Your task to perform on an android device: Go to Reddit.com Image 0: 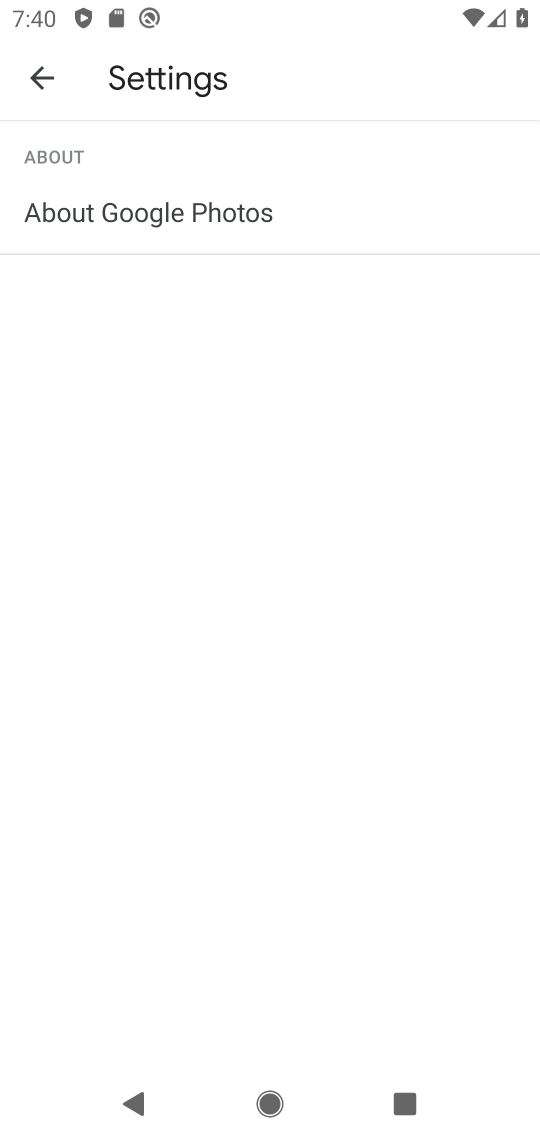
Step 0: press home button
Your task to perform on an android device: Go to Reddit.com Image 1: 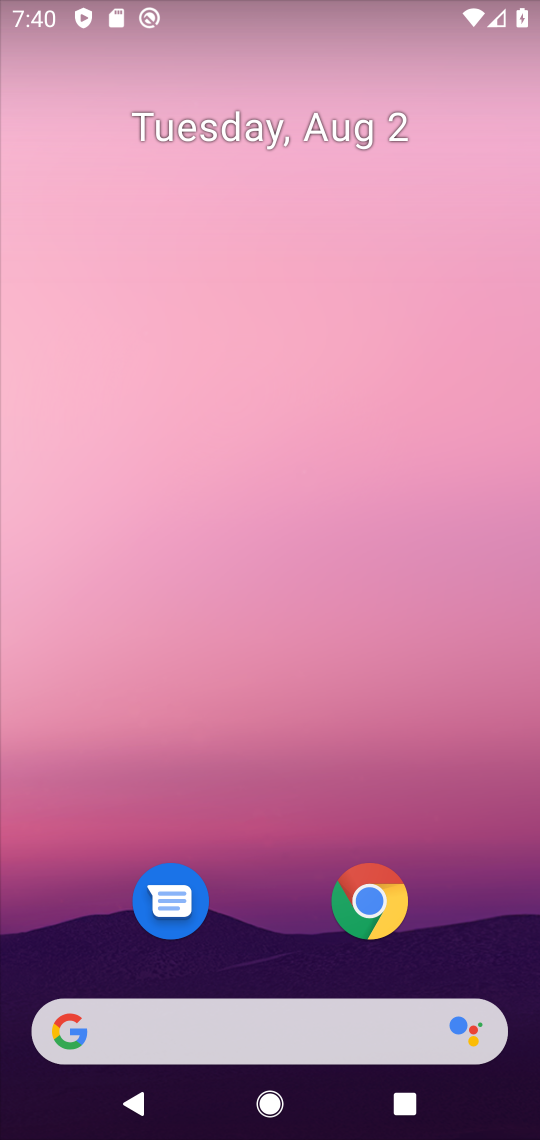
Step 1: click (366, 917)
Your task to perform on an android device: Go to Reddit.com Image 2: 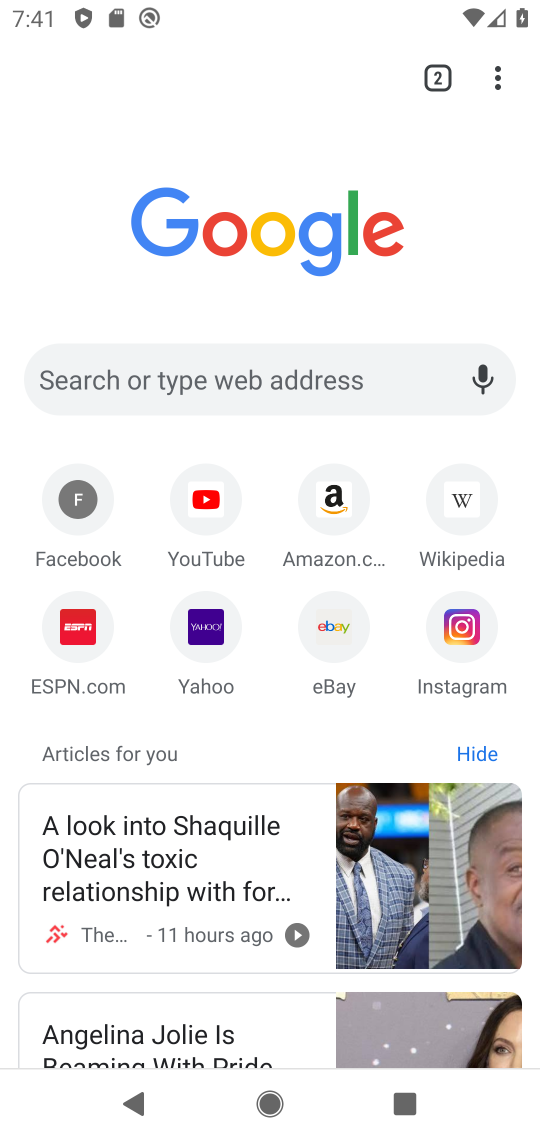
Step 2: click (281, 372)
Your task to perform on an android device: Go to Reddit.com Image 3: 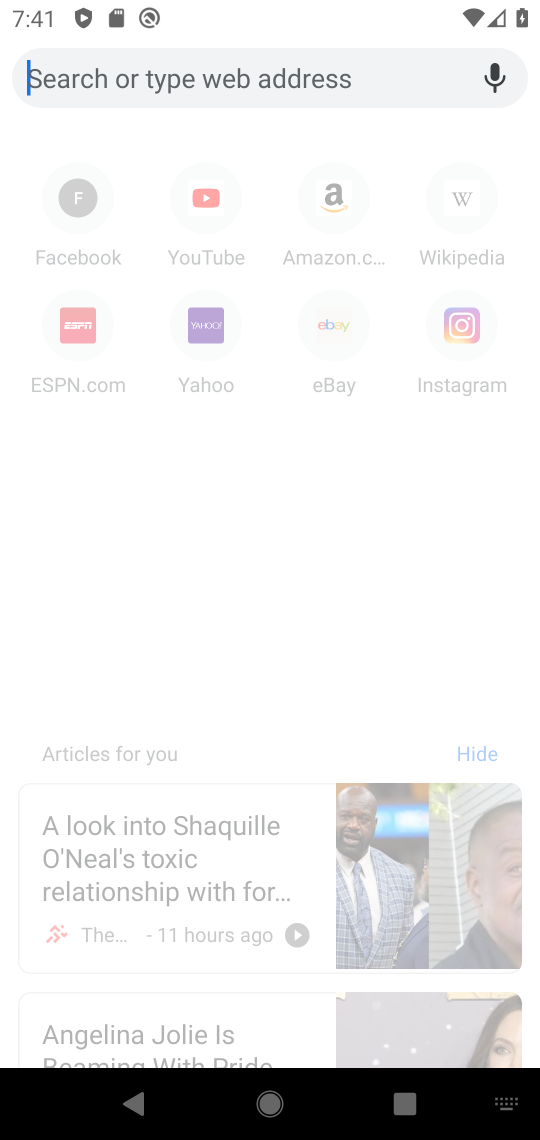
Step 3: type "reddit.com"
Your task to perform on an android device: Go to Reddit.com Image 4: 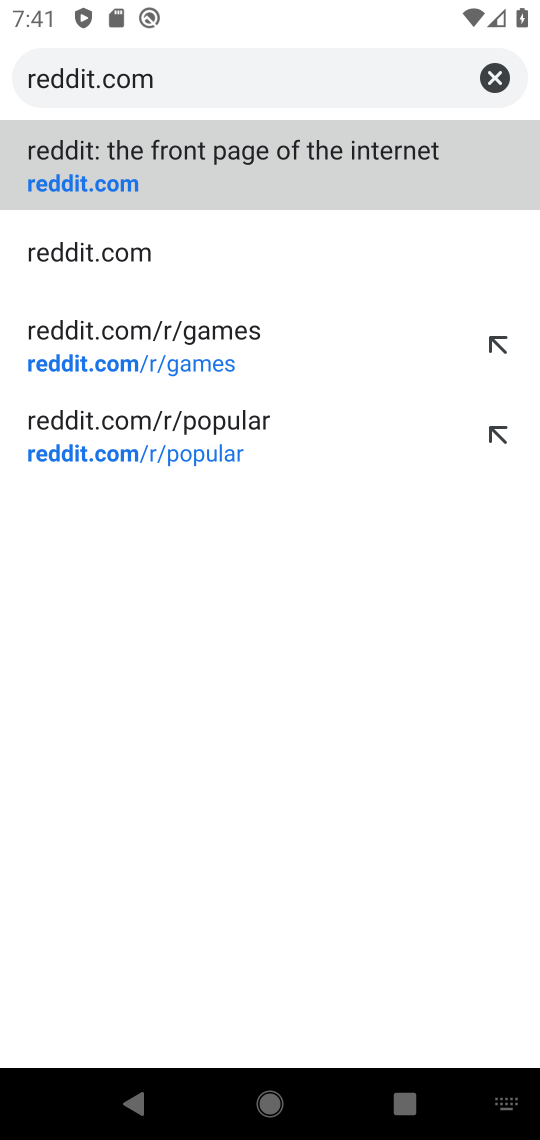
Step 4: click (324, 193)
Your task to perform on an android device: Go to Reddit.com Image 5: 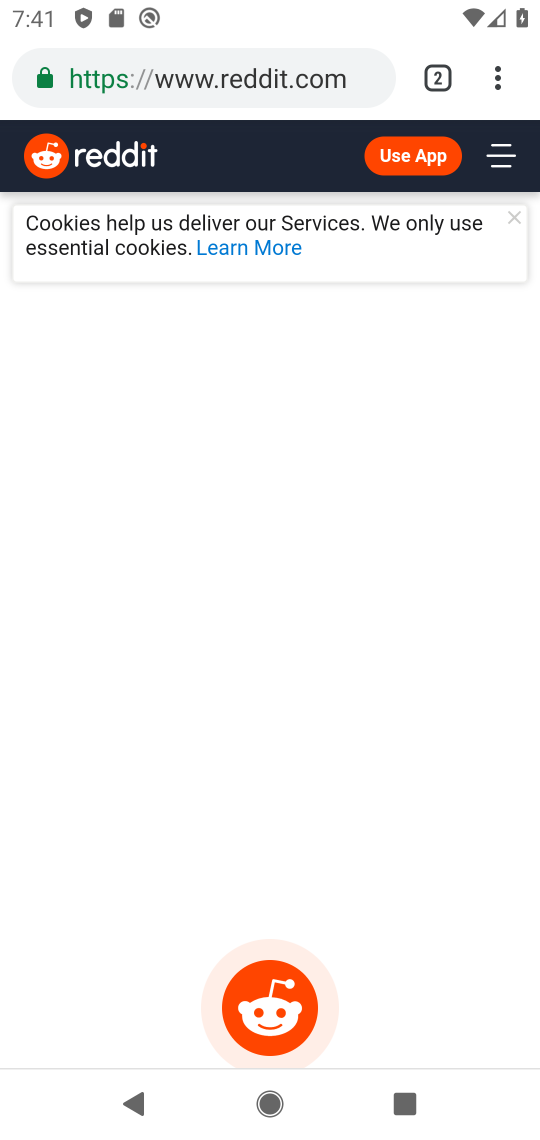
Step 5: task complete